Your task to perform on an android device: Open Maps and search for coffee Image 0: 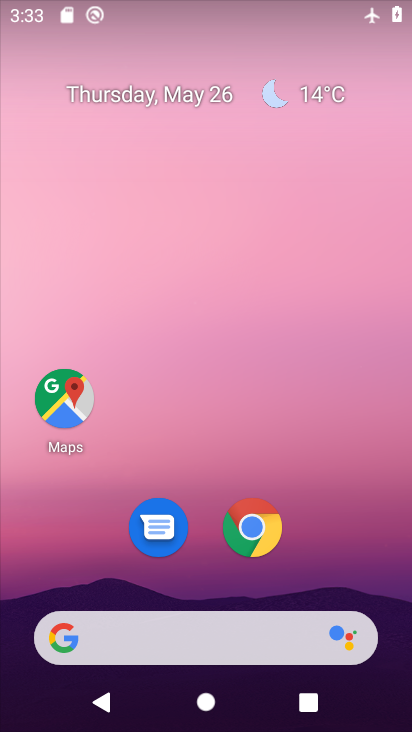
Step 0: click (70, 394)
Your task to perform on an android device: Open Maps and search for coffee Image 1: 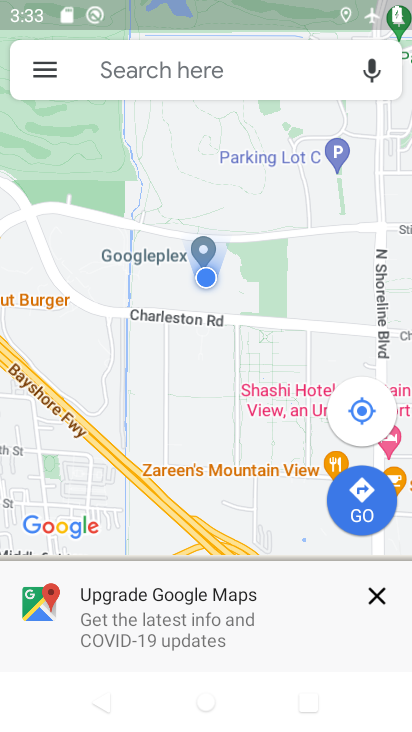
Step 1: click (200, 79)
Your task to perform on an android device: Open Maps and search for coffee Image 2: 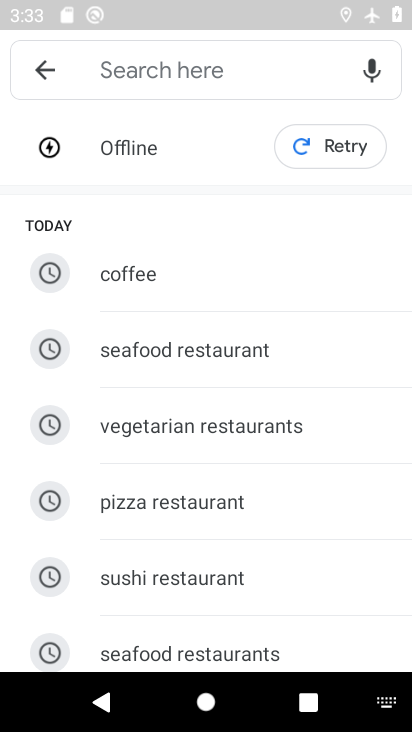
Step 2: click (317, 275)
Your task to perform on an android device: Open Maps and search for coffee Image 3: 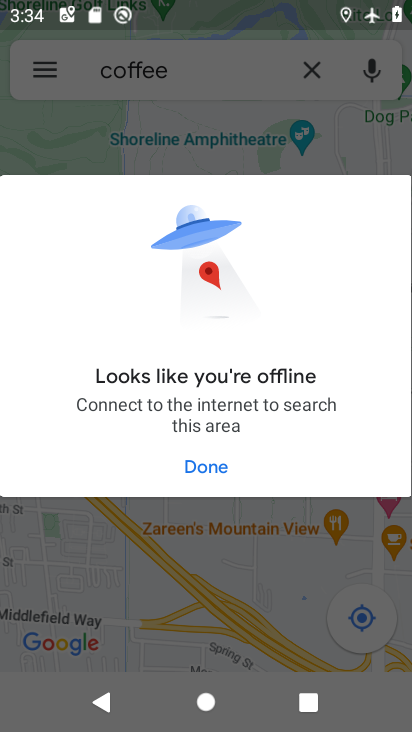
Step 3: task complete